Your task to perform on an android device: Open sound settings Image 0: 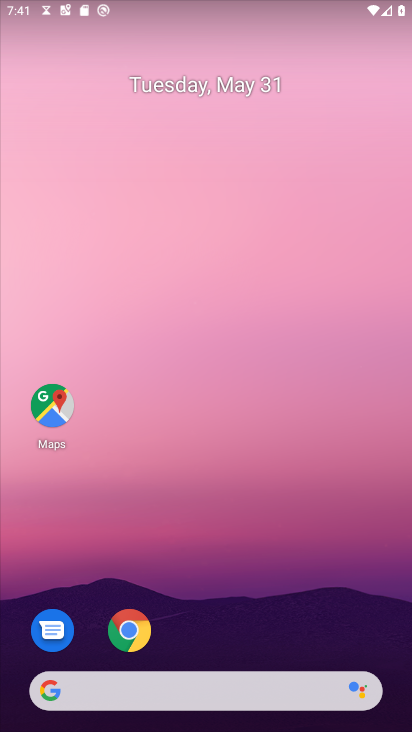
Step 0: drag from (278, 605) to (219, 120)
Your task to perform on an android device: Open sound settings Image 1: 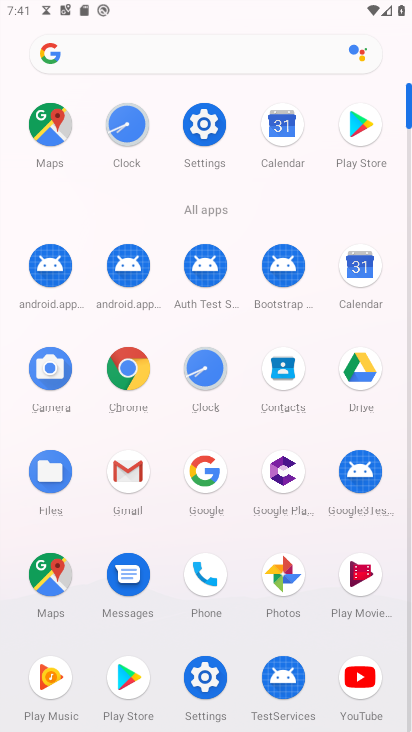
Step 1: click (207, 127)
Your task to perform on an android device: Open sound settings Image 2: 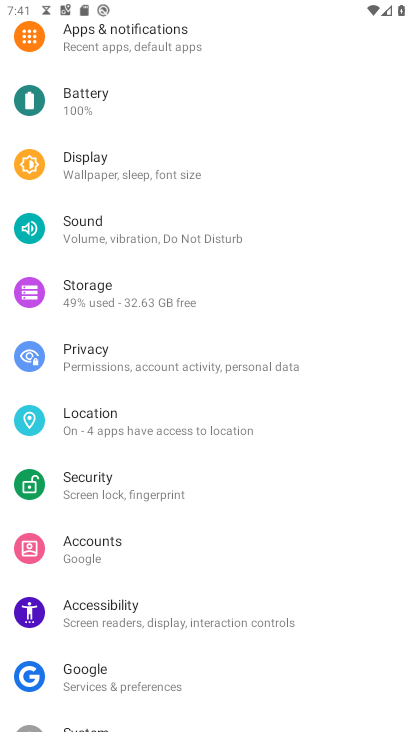
Step 2: click (86, 230)
Your task to perform on an android device: Open sound settings Image 3: 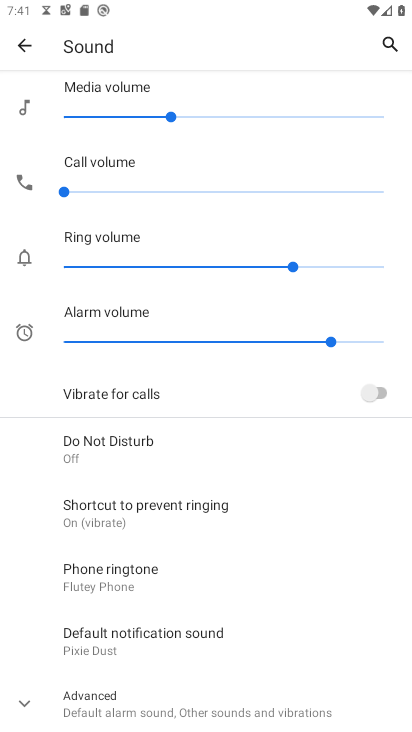
Step 3: task complete